Your task to perform on an android device: Go to Google Image 0: 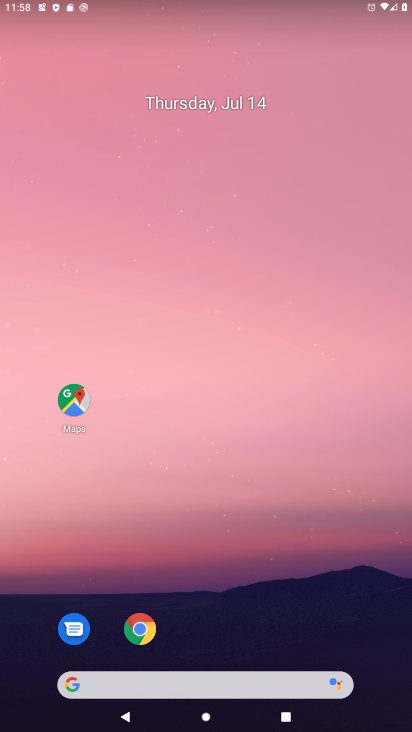
Step 0: press home button
Your task to perform on an android device: Go to Google Image 1: 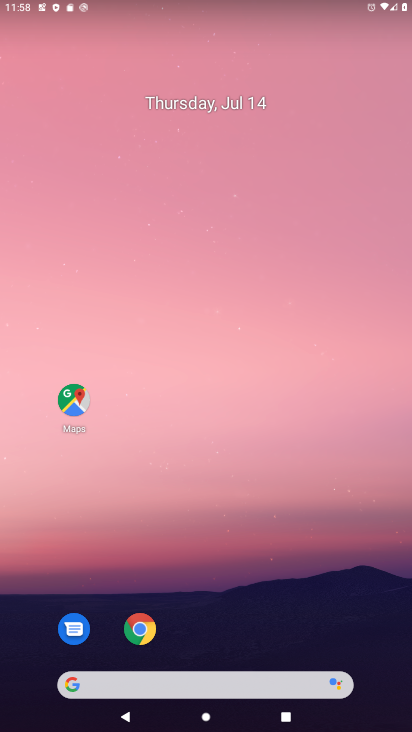
Step 1: click (79, 692)
Your task to perform on an android device: Go to Google Image 2: 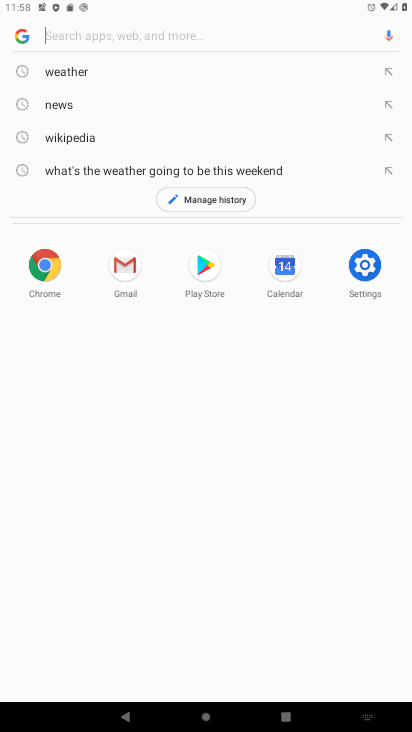
Step 2: task complete